Your task to perform on an android device: turn vacation reply on in the gmail app Image 0: 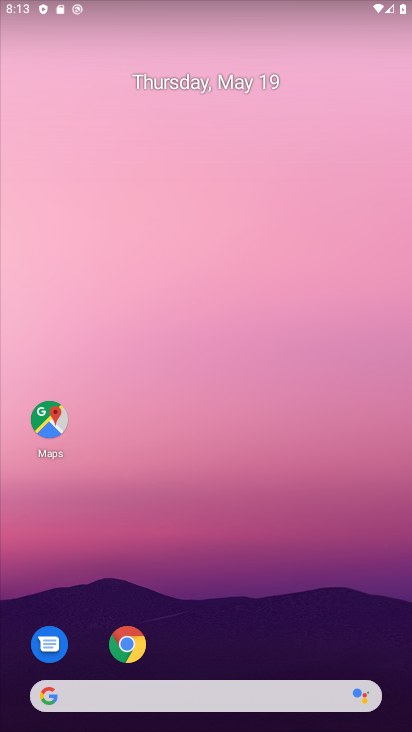
Step 0: drag from (368, 620) to (337, 165)
Your task to perform on an android device: turn vacation reply on in the gmail app Image 1: 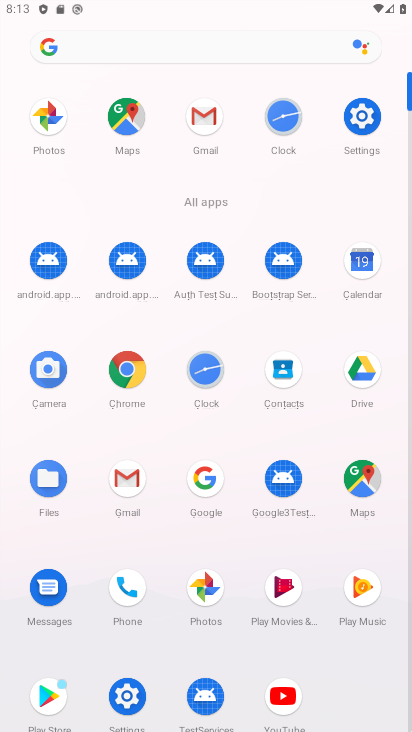
Step 1: click (131, 480)
Your task to perform on an android device: turn vacation reply on in the gmail app Image 2: 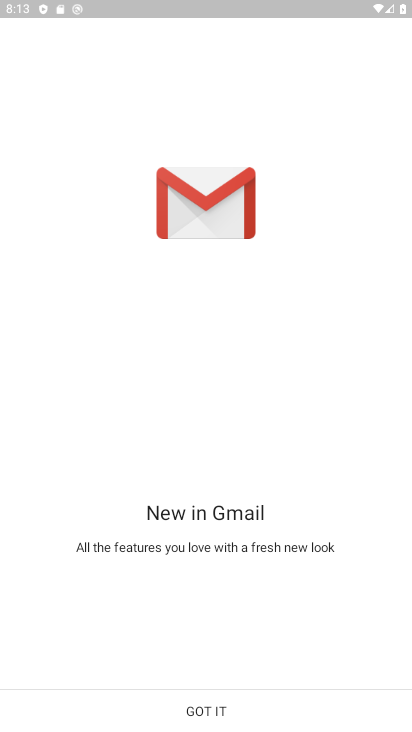
Step 2: click (222, 715)
Your task to perform on an android device: turn vacation reply on in the gmail app Image 3: 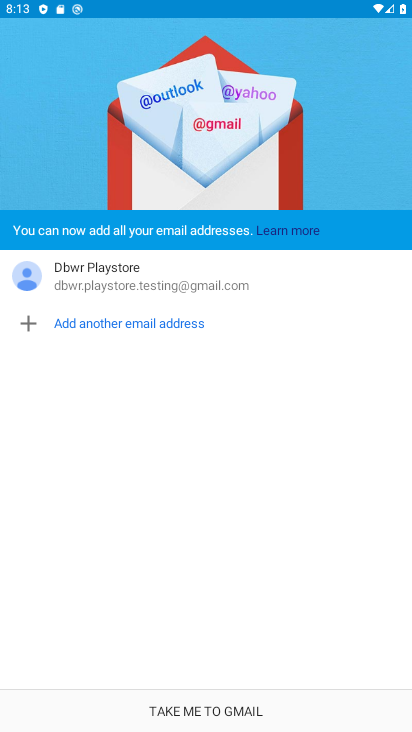
Step 3: click (224, 709)
Your task to perform on an android device: turn vacation reply on in the gmail app Image 4: 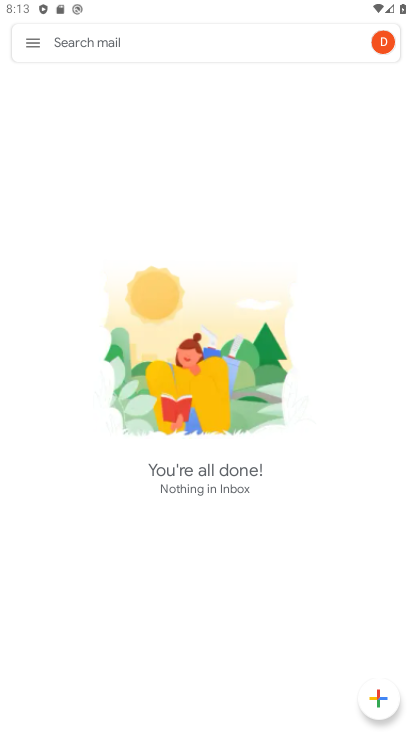
Step 4: click (44, 46)
Your task to perform on an android device: turn vacation reply on in the gmail app Image 5: 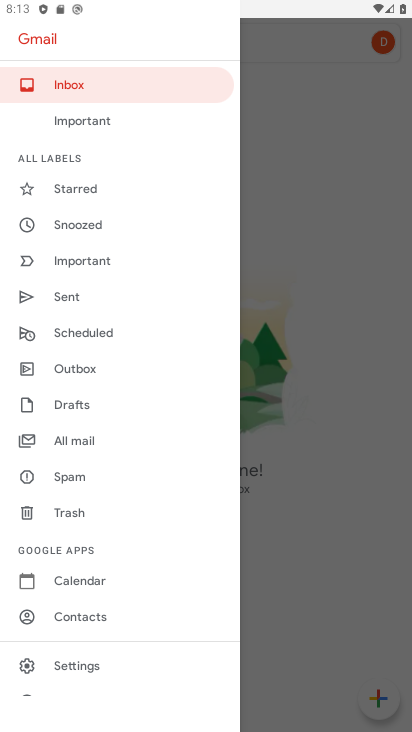
Step 5: click (96, 675)
Your task to perform on an android device: turn vacation reply on in the gmail app Image 6: 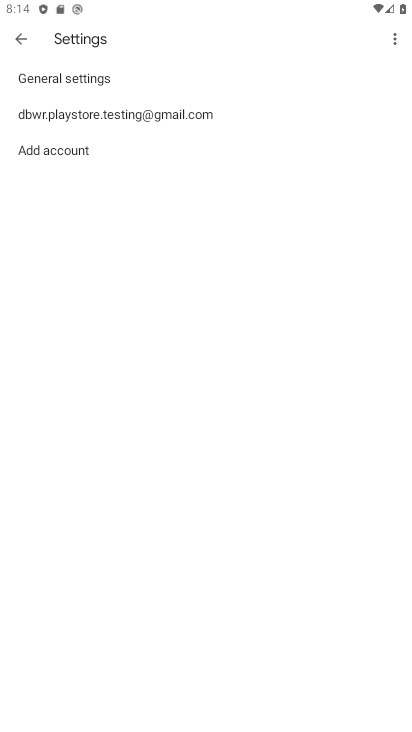
Step 6: click (161, 118)
Your task to perform on an android device: turn vacation reply on in the gmail app Image 7: 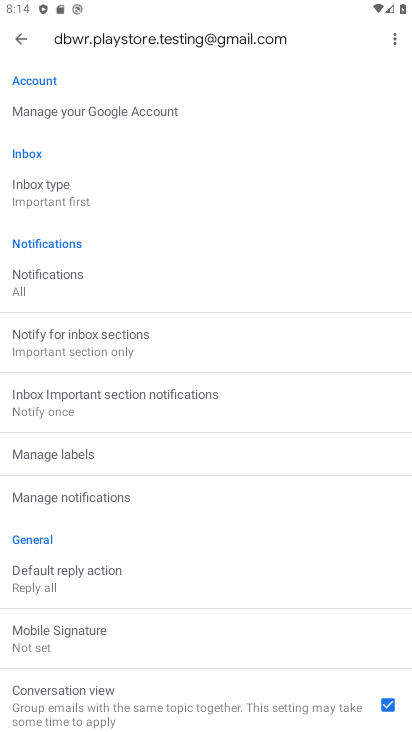
Step 7: drag from (146, 621) to (208, 339)
Your task to perform on an android device: turn vacation reply on in the gmail app Image 8: 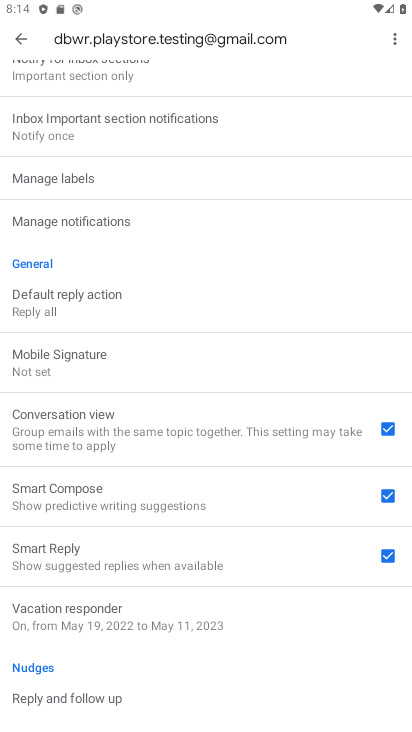
Step 8: click (116, 617)
Your task to perform on an android device: turn vacation reply on in the gmail app Image 9: 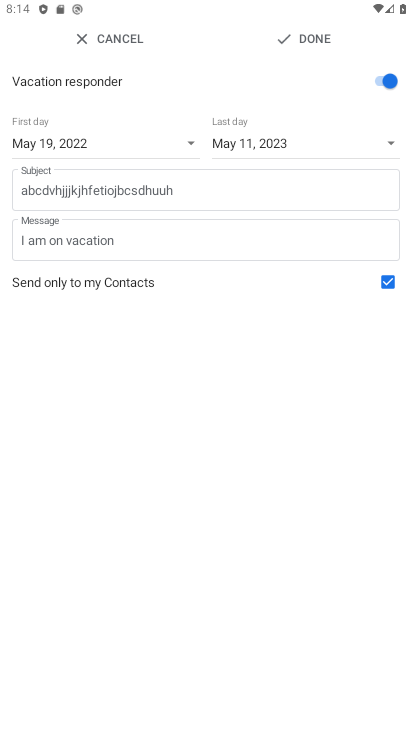
Step 9: task complete